Your task to perform on an android device: turn off wifi Image 0: 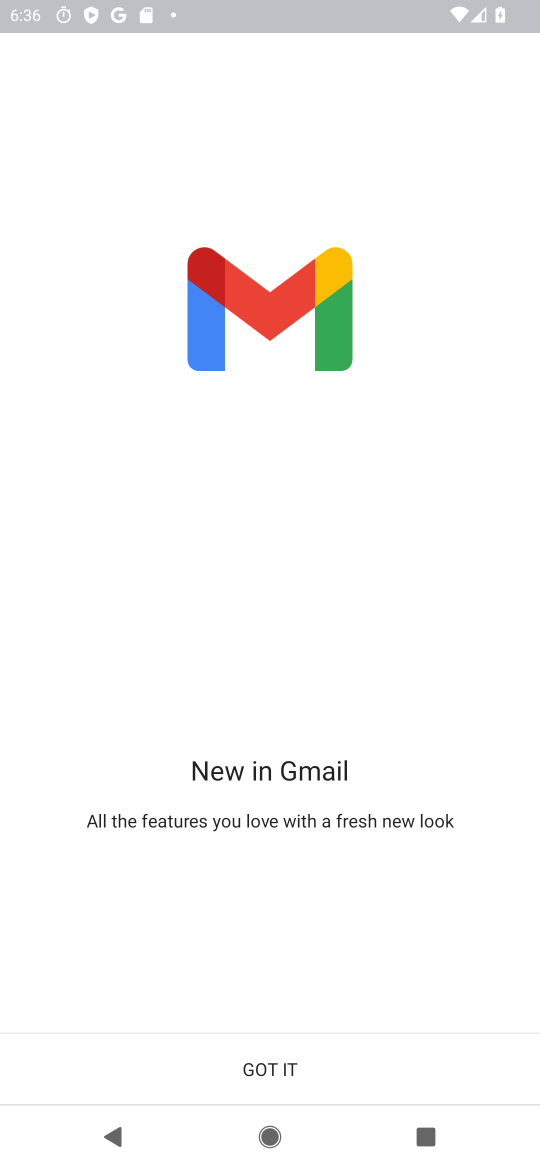
Step 0: press home button
Your task to perform on an android device: turn off wifi Image 1: 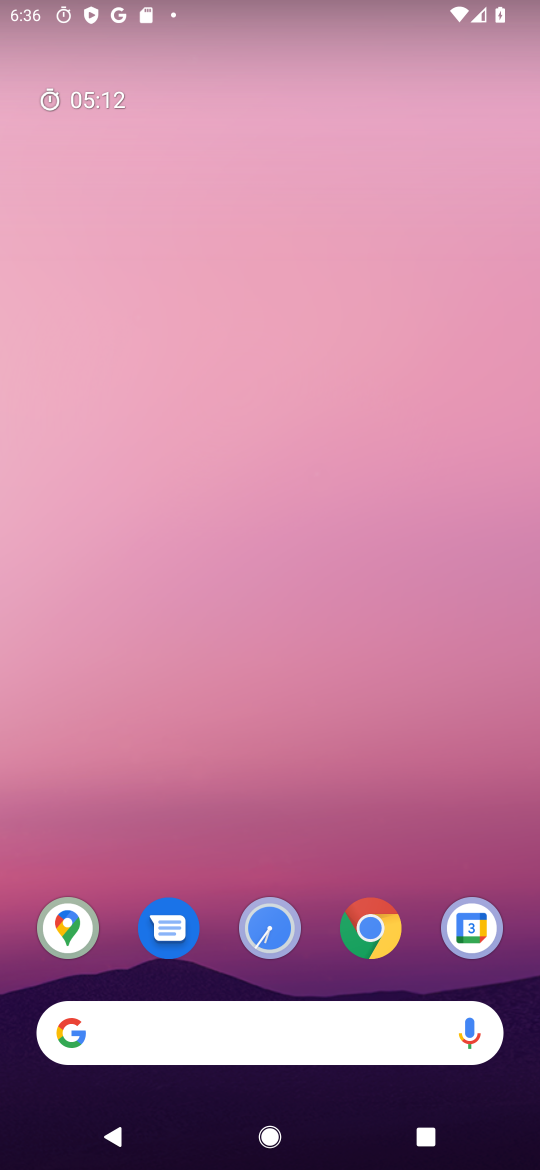
Step 1: drag from (313, 852) to (328, 195)
Your task to perform on an android device: turn off wifi Image 2: 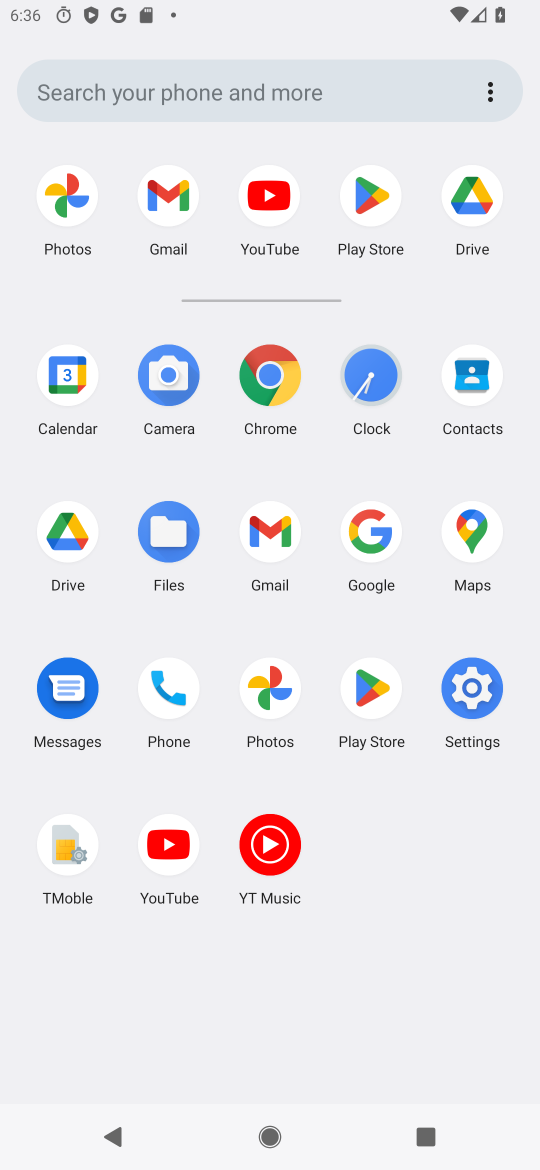
Step 2: click (486, 694)
Your task to perform on an android device: turn off wifi Image 3: 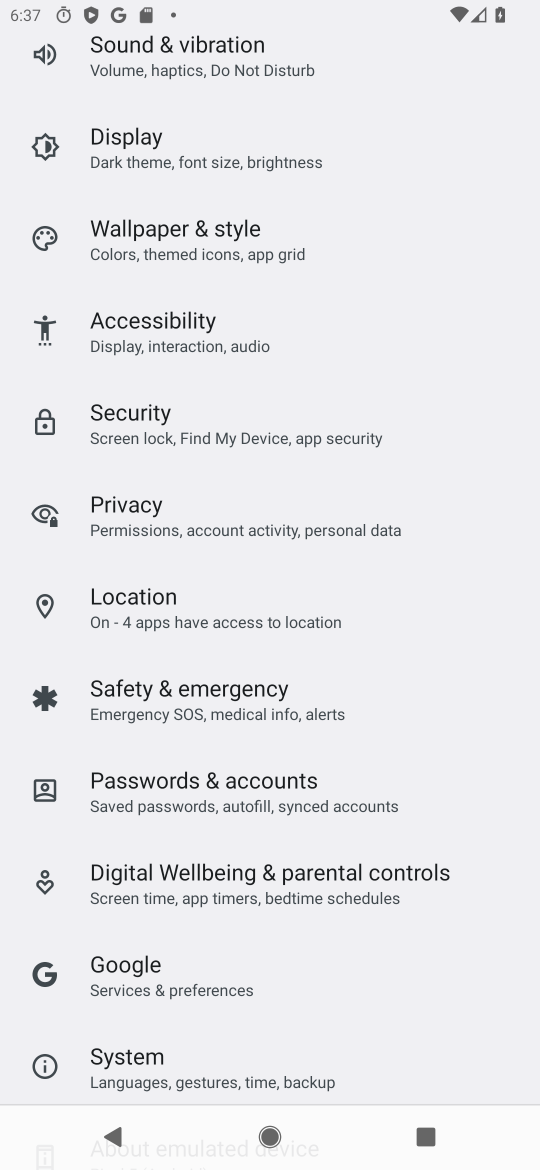
Step 3: drag from (429, 319) to (461, 585)
Your task to perform on an android device: turn off wifi Image 4: 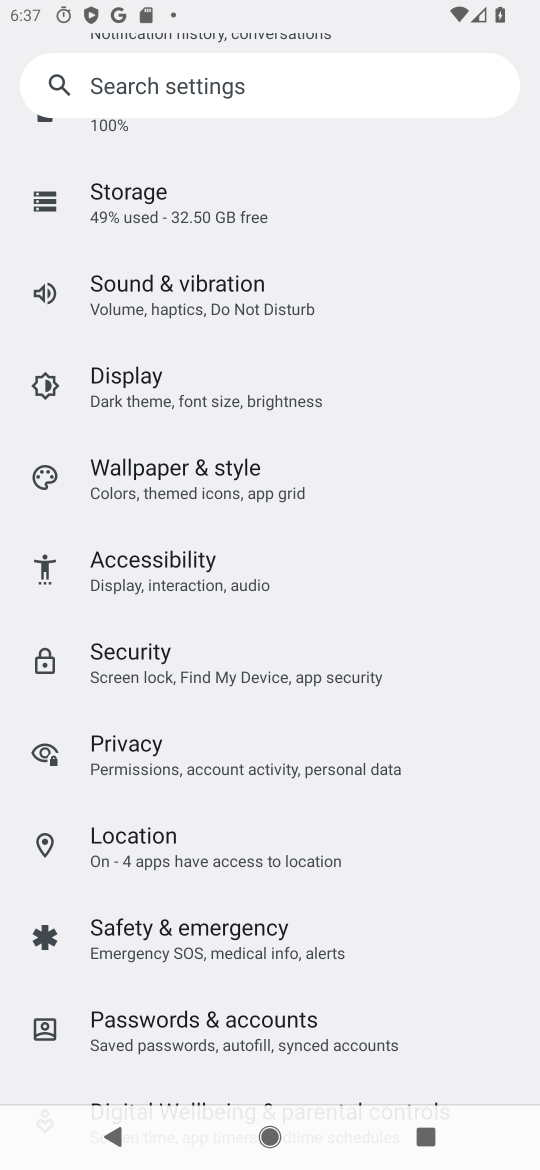
Step 4: drag from (447, 377) to (446, 624)
Your task to perform on an android device: turn off wifi Image 5: 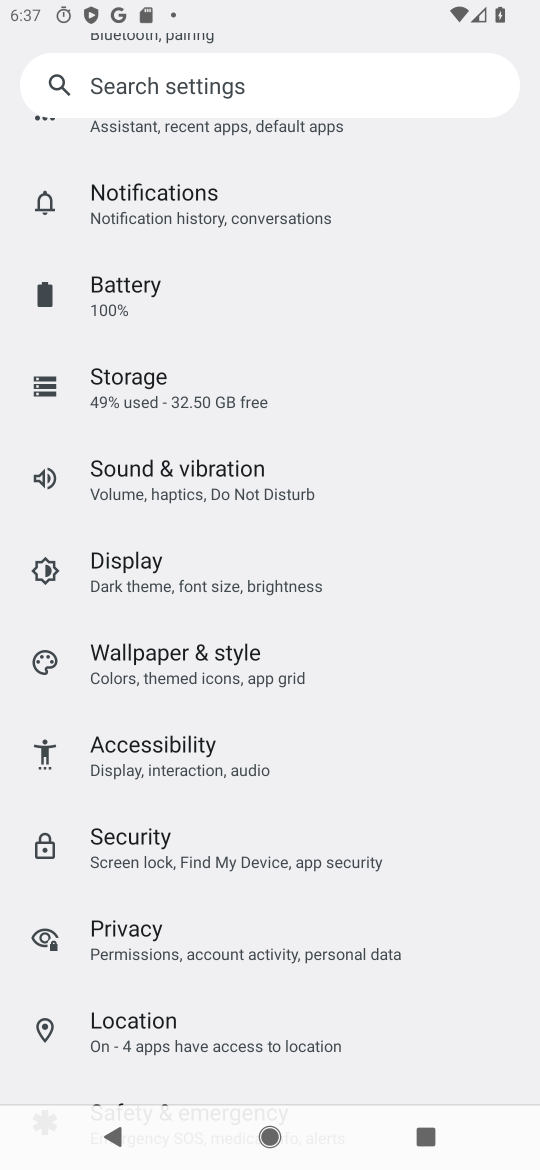
Step 5: drag from (455, 258) to (437, 570)
Your task to perform on an android device: turn off wifi Image 6: 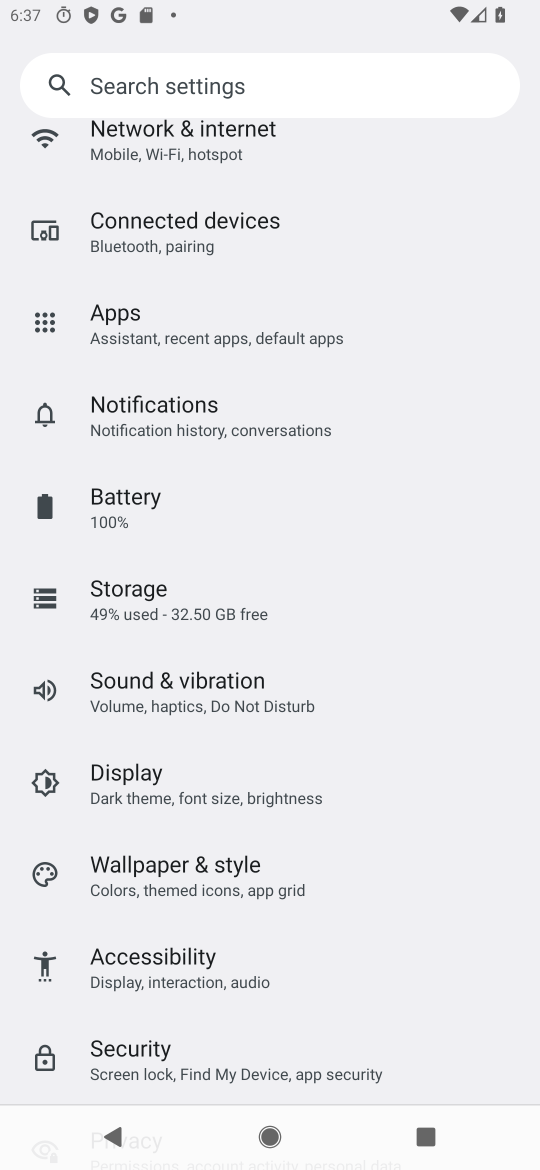
Step 6: drag from (407, 837) to (419, 555)
Your task to perform on an android device: turn off wifi Image 7: 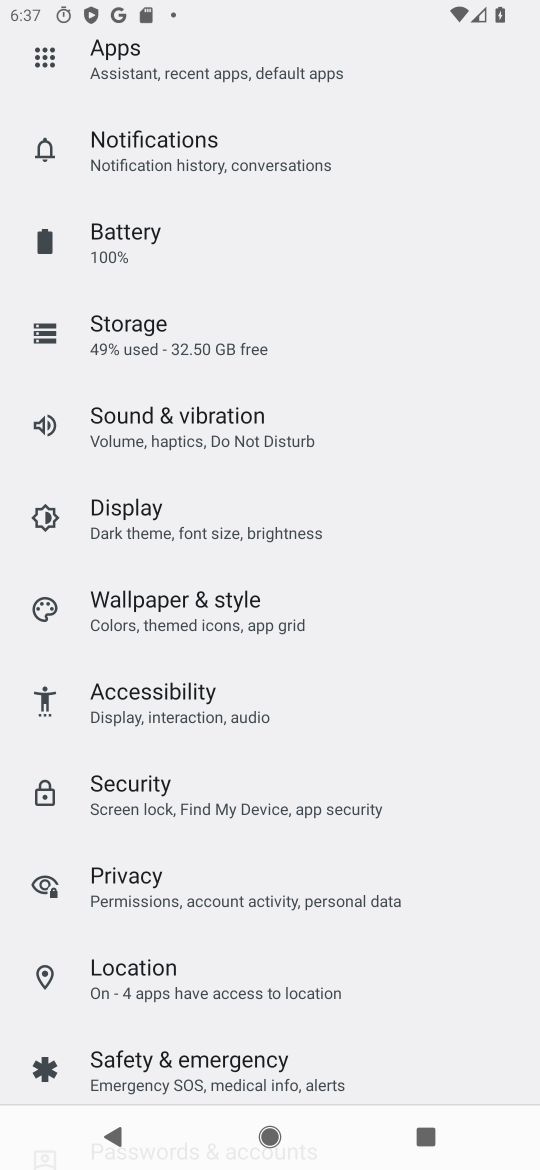
Step 7: drag from (437, 354) to (448, 698)
Your task to perform on an android device: turn off wifi Image 8: 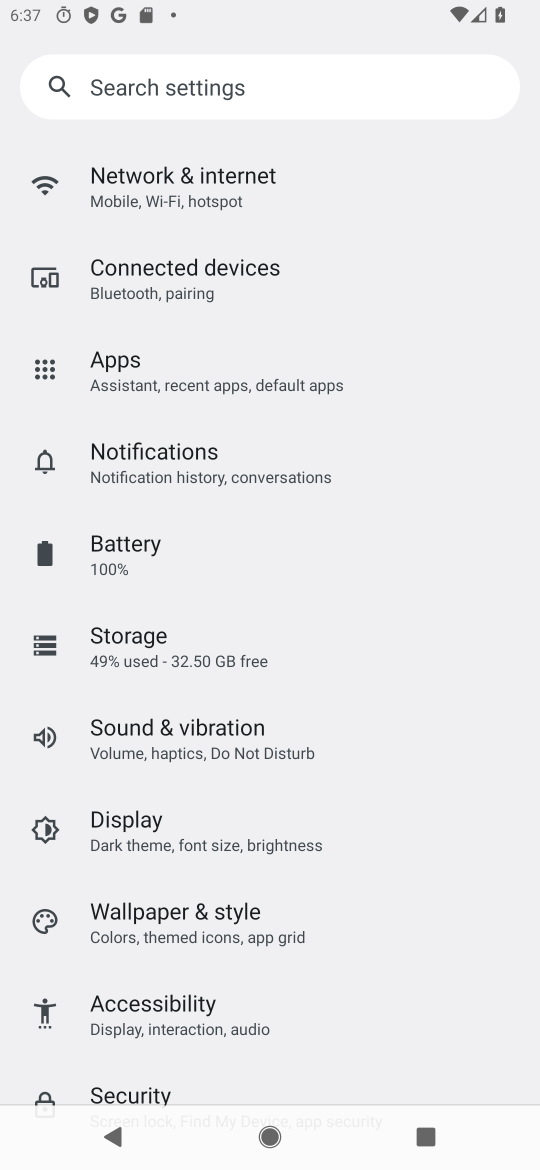
Step 8: drag from (443, 345) to (450, 667)
Your task to perform on an android device: turn off wifi Image 9: 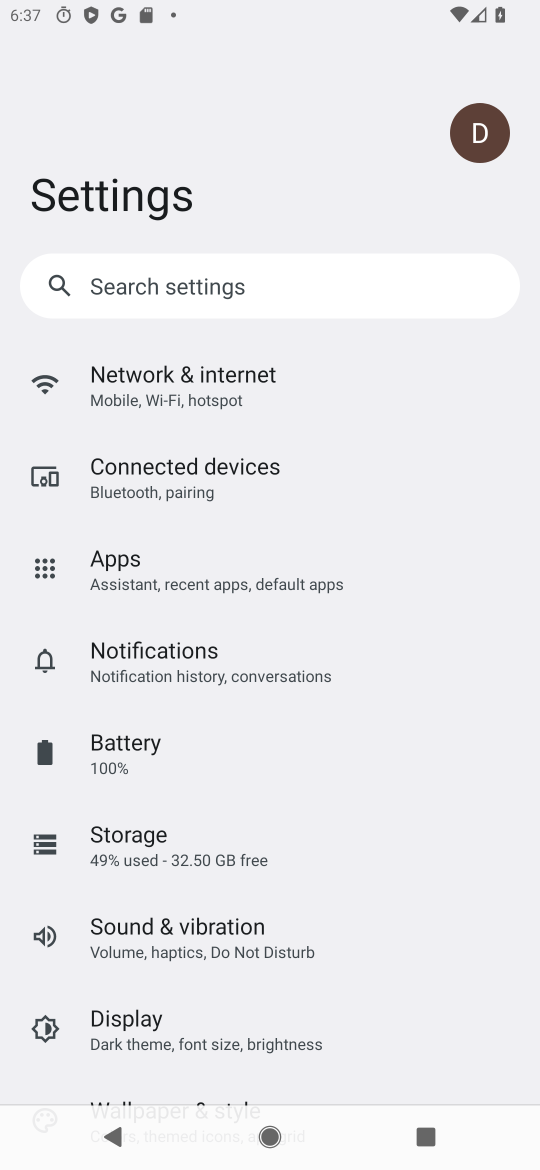
Step 9: drag from (406, 799) to (442, 562)
Your task to perform on an android device: turn off wifi Image 10: 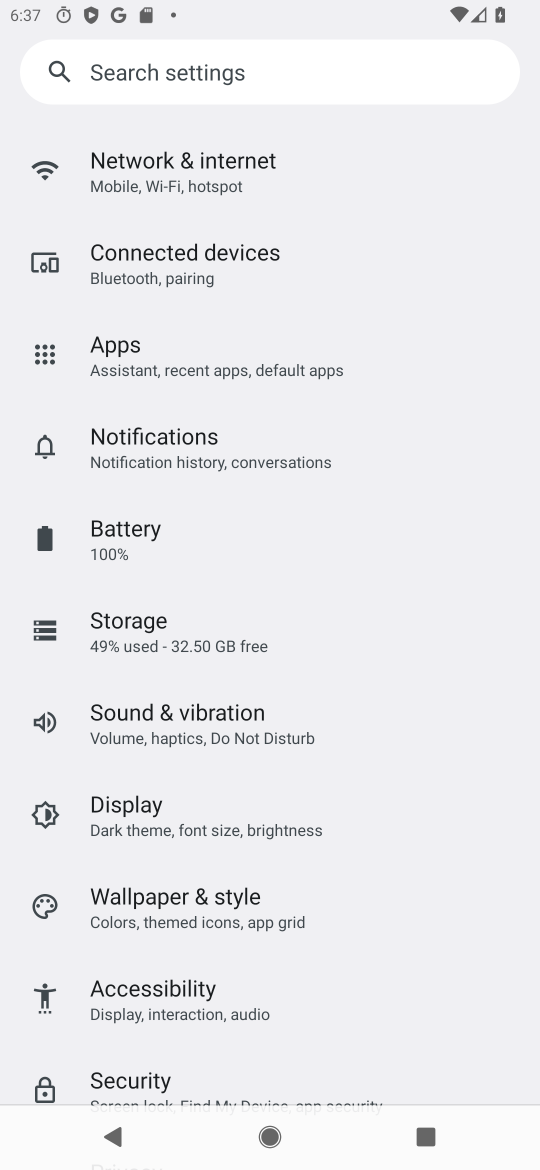
Step 10: click (229, 162)
Your task to perform on an android device: turn off wifi Image 11: 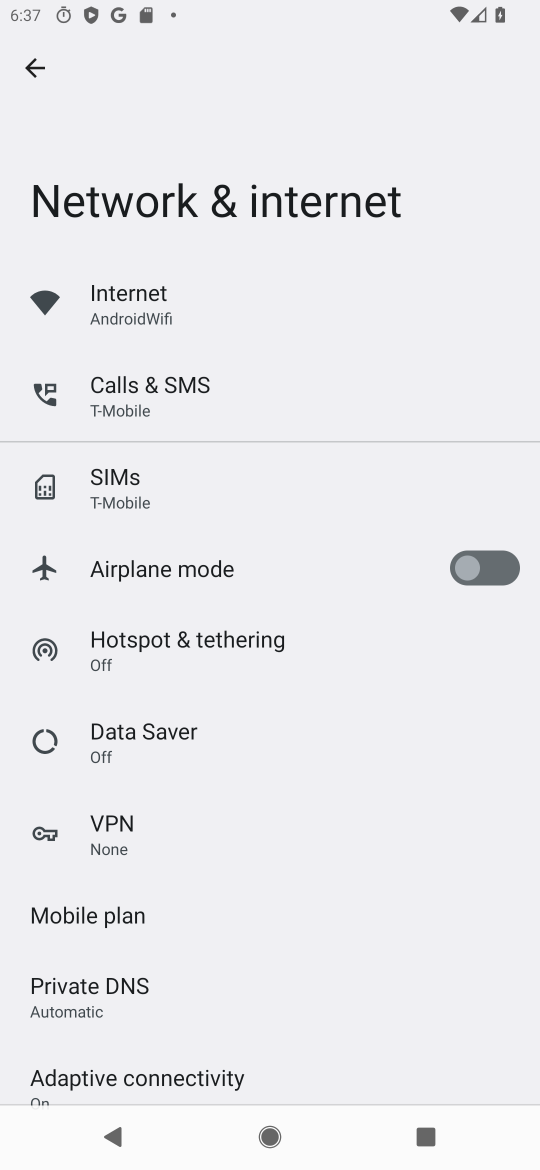
Step 11: drag from (337, 808) to (357, 542)
Your task to perform on an android device: turn off wifi Image 12: 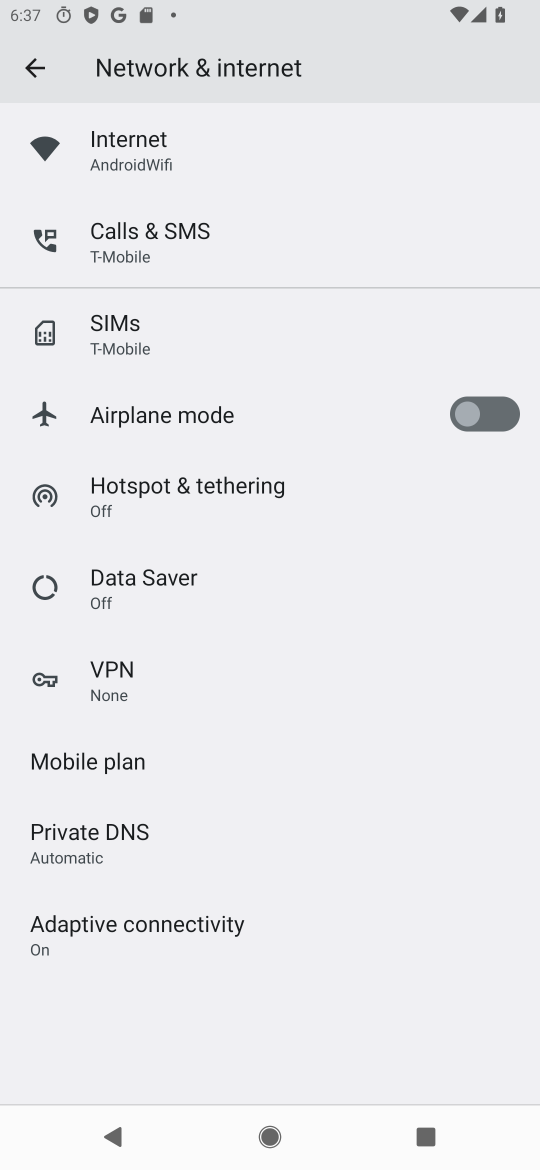
Step 12: drag from (354, 369) to (362, 712)
Your task to perform on an android device: turn off wifi Image 13: 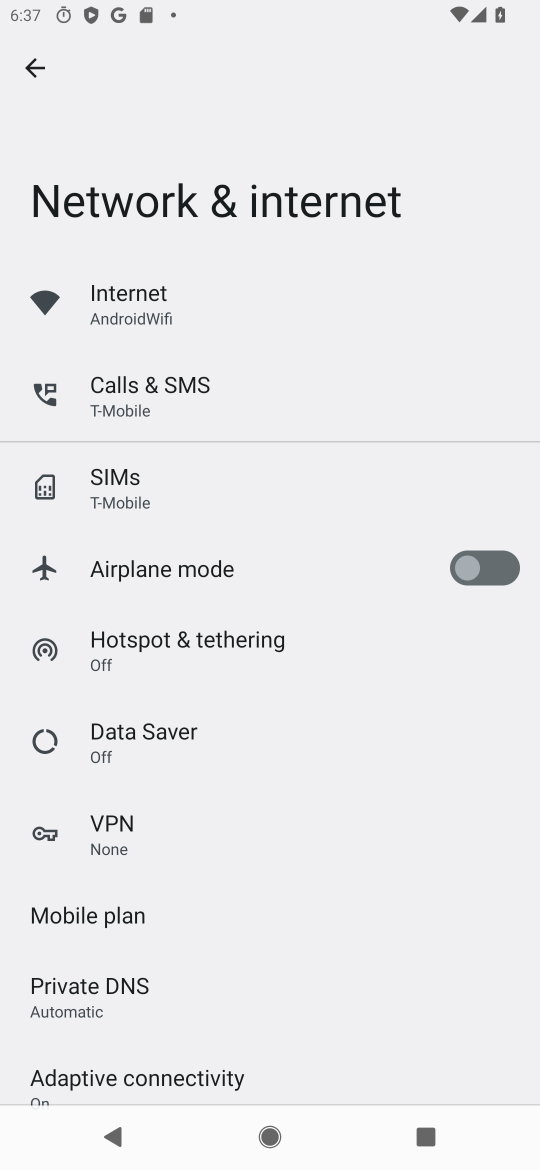
Step 13: click (184, 301)
Your task to perform on an android device: turn off wifi Image 14: 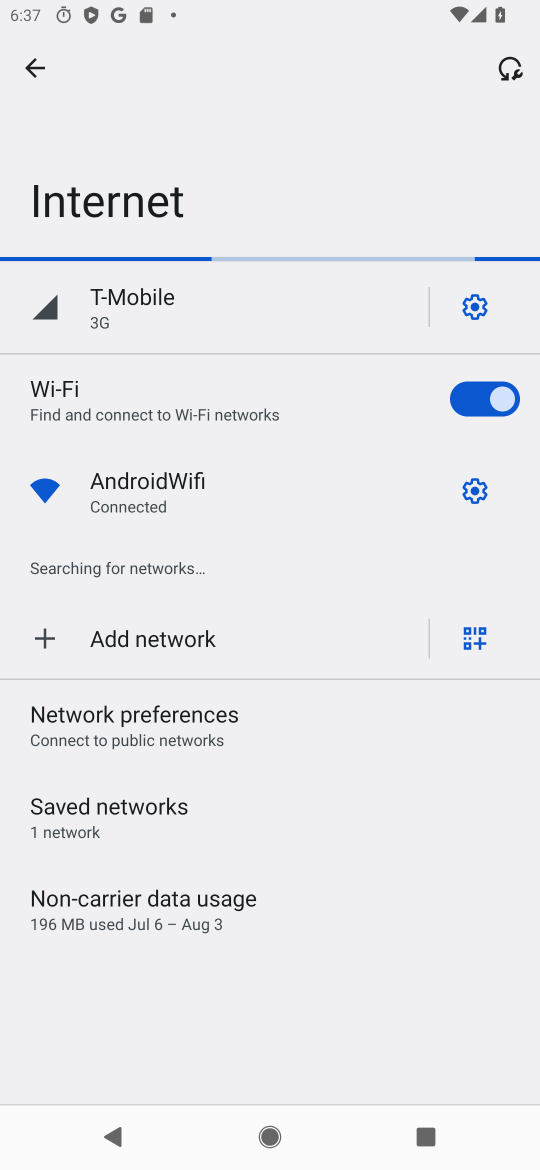
Step 14: click (495, 386)
Your task to perform on an android device: turn off wifi Image 15: 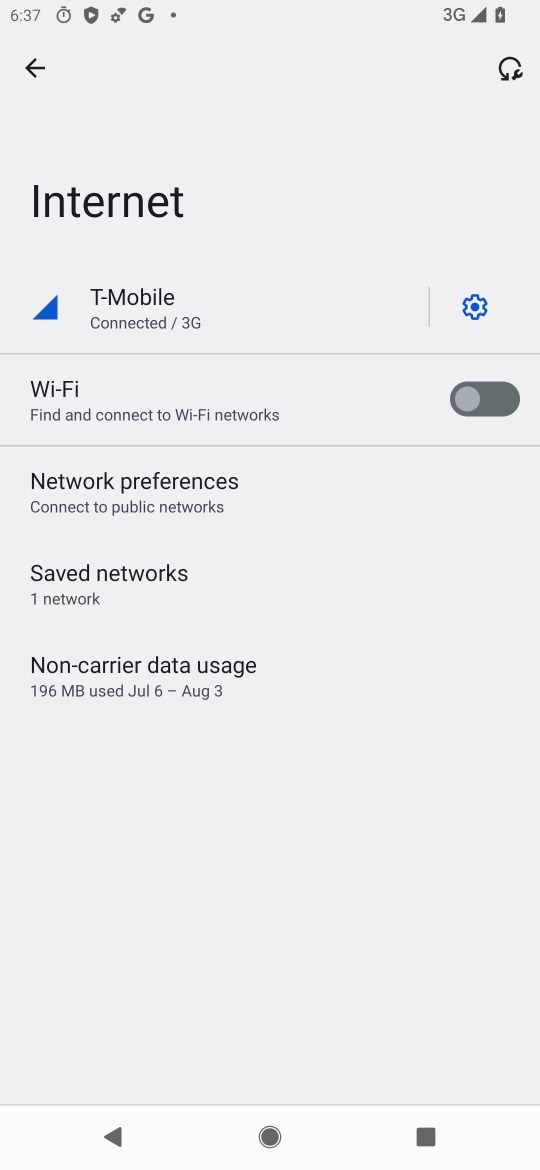
Step 15: task complete